Your task to perform on an android device: Go to wifi settings Image 0: 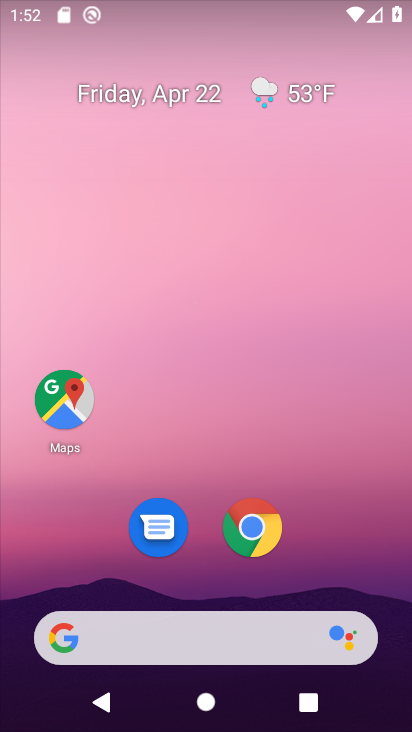
Step 0: drag from (335, 536) to (254, 0)
Your task to perform on an android device: Go to wifi settings Image 1: 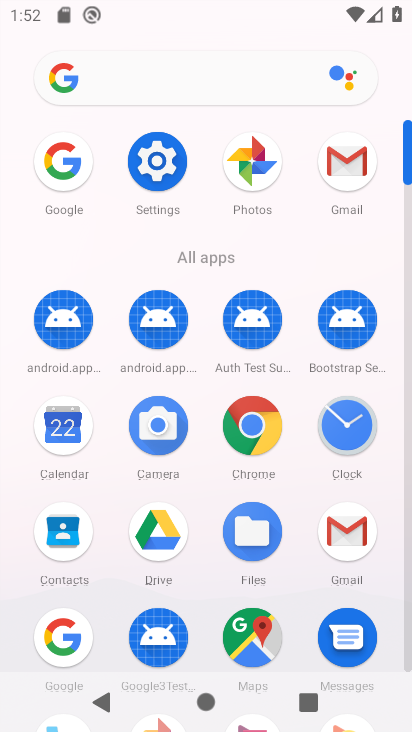
Step 1: click (175, 164)
Your task to perform on an android device: Go to wifi settings Image 2: 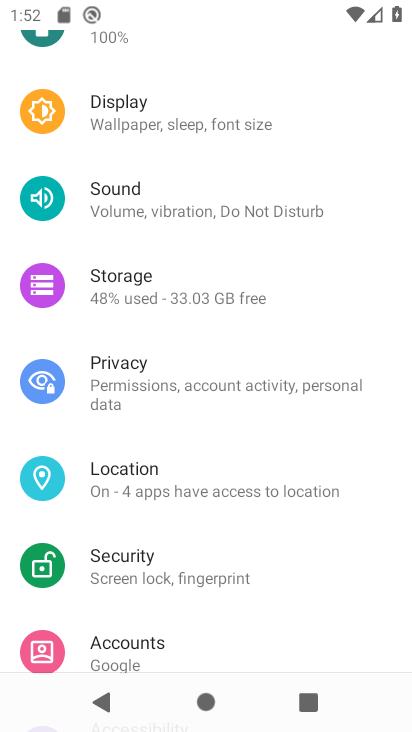
Step 2: drag from (168, 87) to (129, 729)
Your task to perform on an android device: Go to wifi settings Image 3: 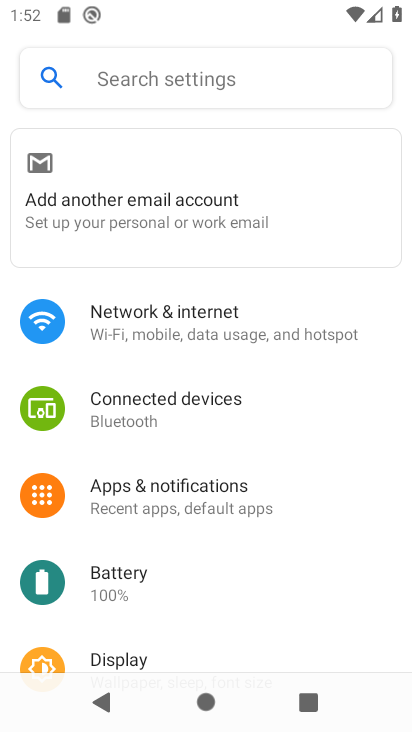
Step 3: click (112, 319)
Your task to perform on an android device: Go to wifi settings Image 4: 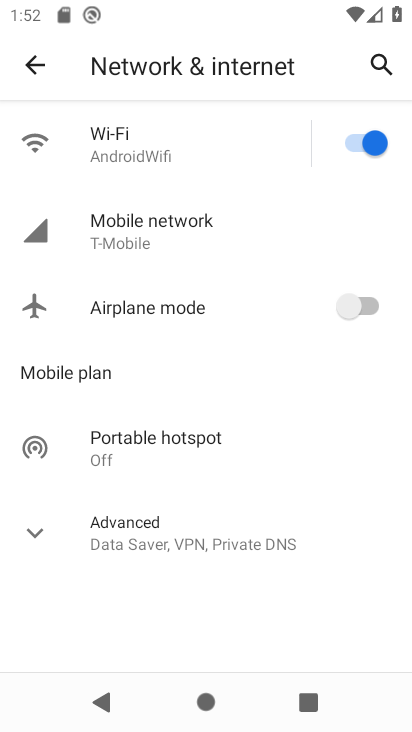
Step 4: click (96, 148)
Your task to perform on an android device: Go to wifi settings Image 5: 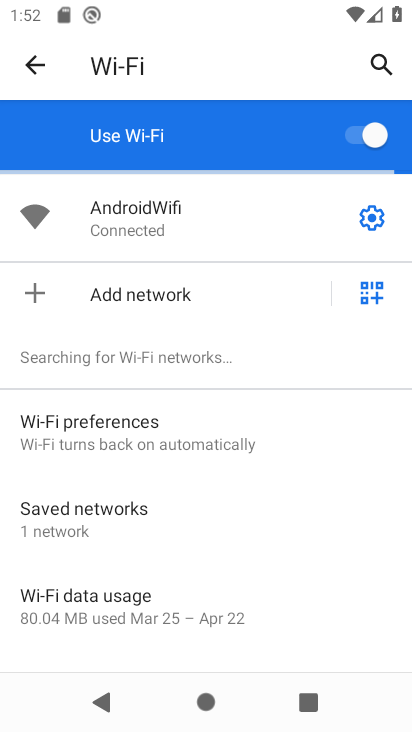
Step 5: task complete